Your task to perform on an android device: toggle priority inbox in the gmail app Image 0: 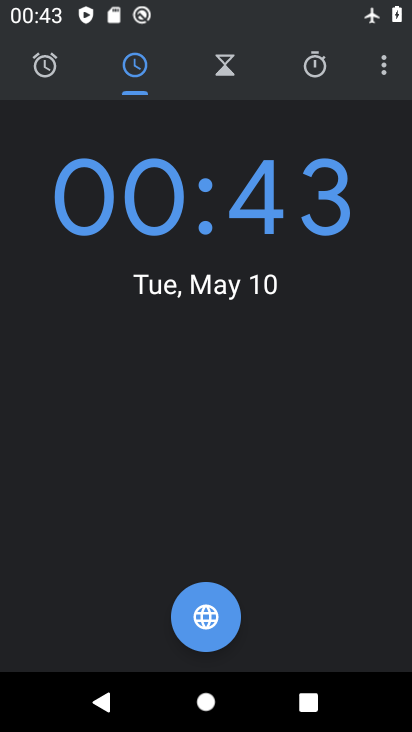
Step 0: press home button
Your task to perform on an android device: toggle priority inbox in the gmail app Image 1: 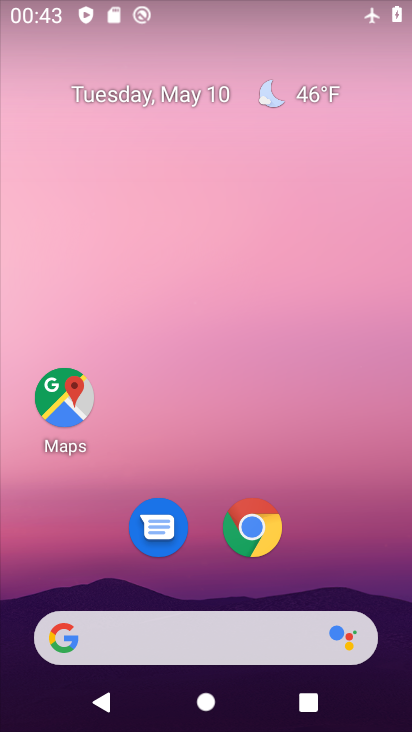
Step 1: drag from (355, 598) to (284, 222)
Your task to perform on an android device: toggle priority inbox in the gmail app Image 2: 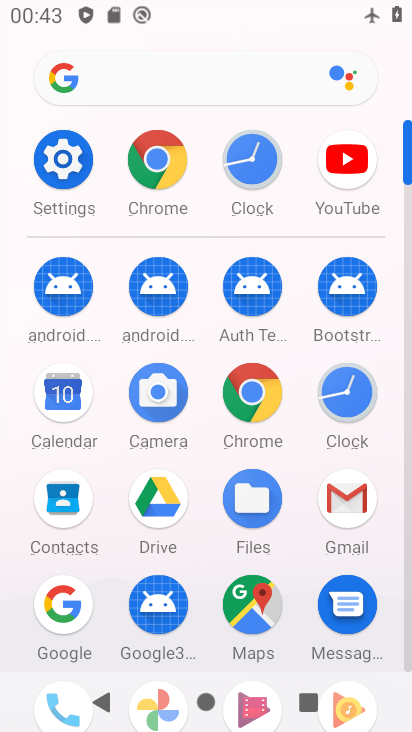
Step 2: click (360, 496)
Your task to perform on an android device: toggle priority inbox in the gmail app Image 3: 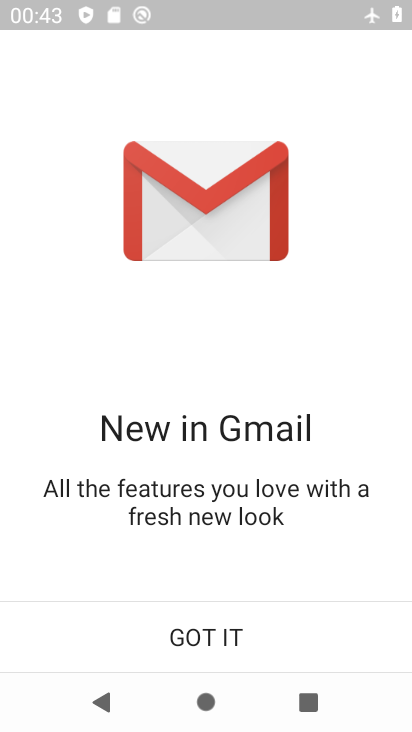
Step 3: click (228, 615)
Your task to perform on an android device: toggle priority inbox in the gmail app Image 4: 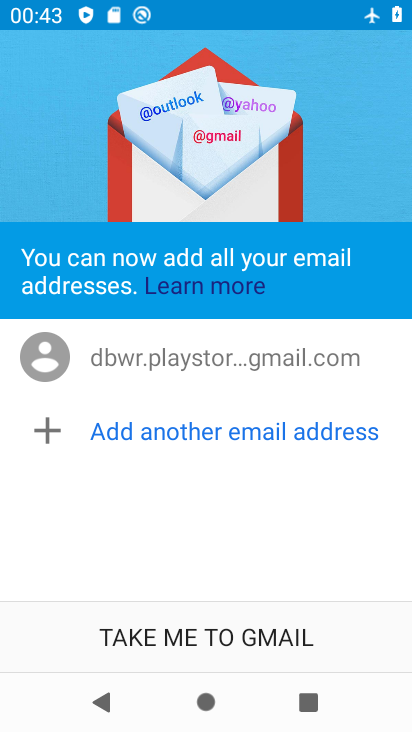
Step 4: click (233, 626)
Your task to perform on an android device: toggle priority inbox in the gmail app Image 5: 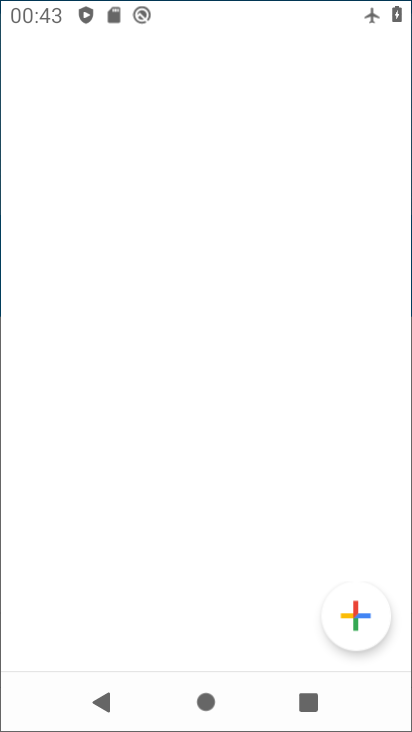
Step 5: click (233, 626)
Your task to perform on an android device: toggle priority inbox in the gmail app Image 6: 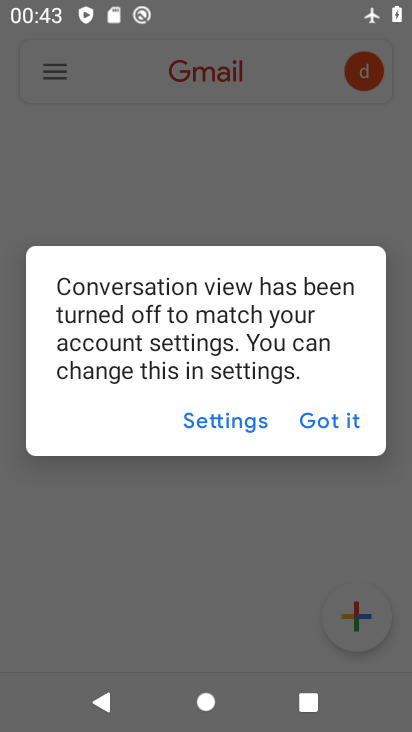
Step 6: click (354, 426)
Your task to perform on an android device: toggle priority inbox in the gmail app Image 7: 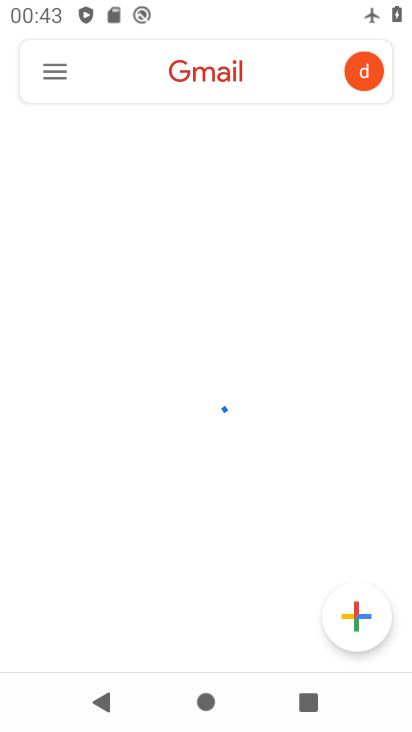
Step 7: click (41, 66)
Your task to perform on an android device: toggle priority inbox in the gmail app Image 8: 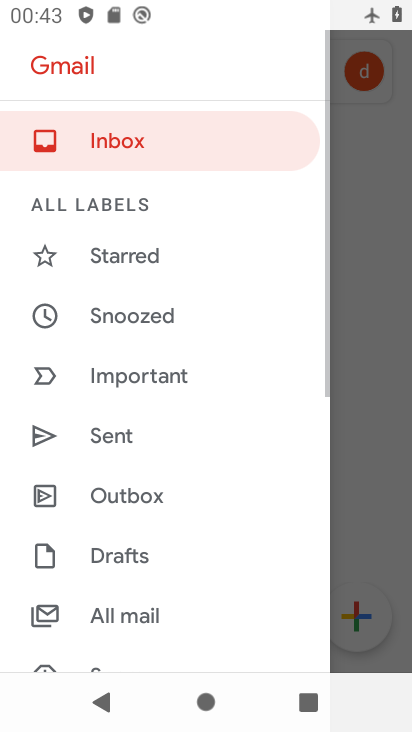
Step 8: drag from (160, 613) to (182, 143)
Your task to perform on an android device: toggle priority inbox in the gmail app Image 9: 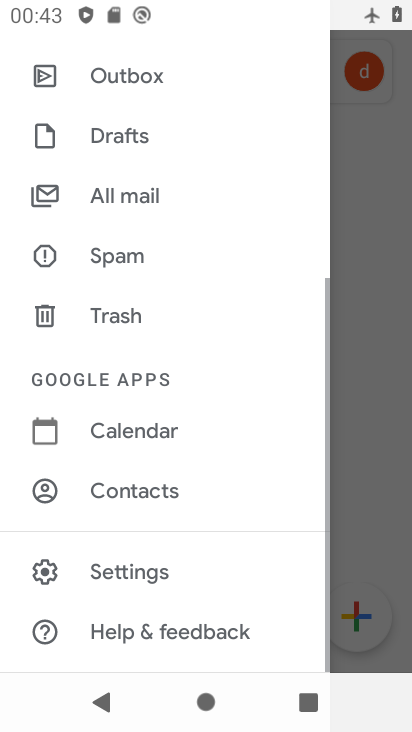
Step 9: click (135, 561)
Your task to perform on an android device: toggle priority inbox in the gmail app Image 10: 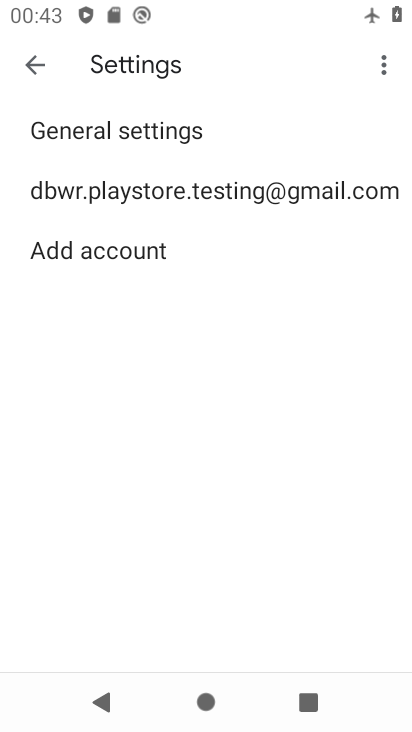
Step 10: click (269, 186)
Your task to perform on an android device: toggle priority inbox in the gmail app Image 11: 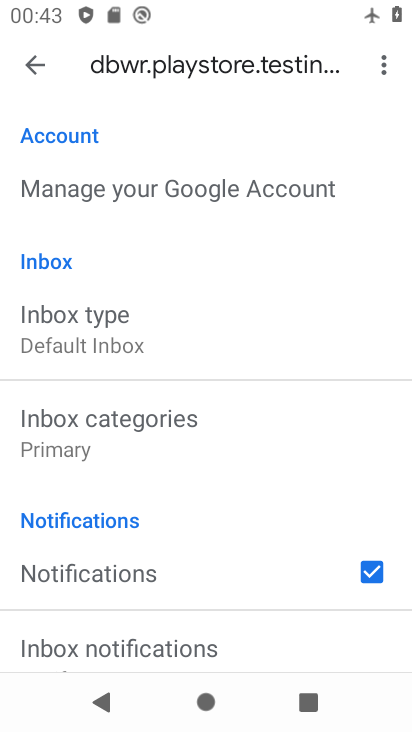
Step 11: click (119, 340)
Your task to perform on an android device: toggle priority inbox in the gmail app Image 12: 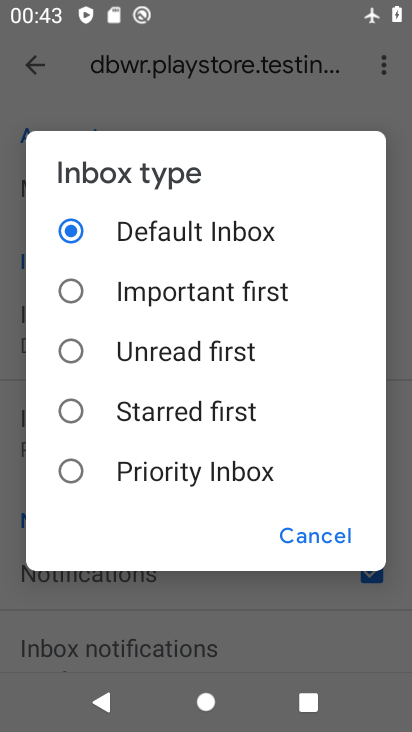
Step 12: click (140, 482)
Your task to perform on an android device: toggle priority inbox in the gmail app Image 13: 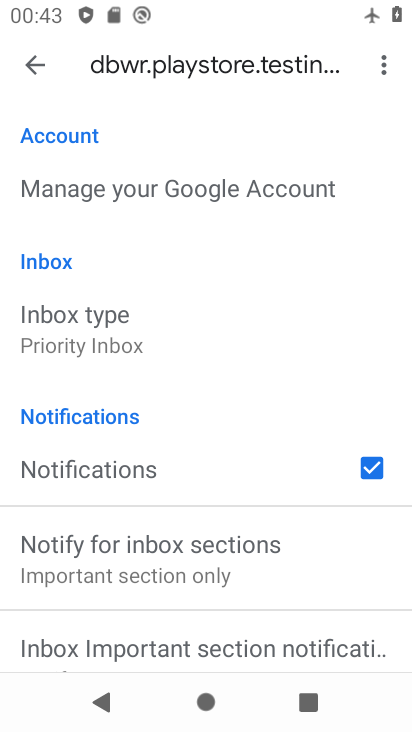
Step 13: task complete